Your task to perform on an android device: Open Yahoo.com Image 0: 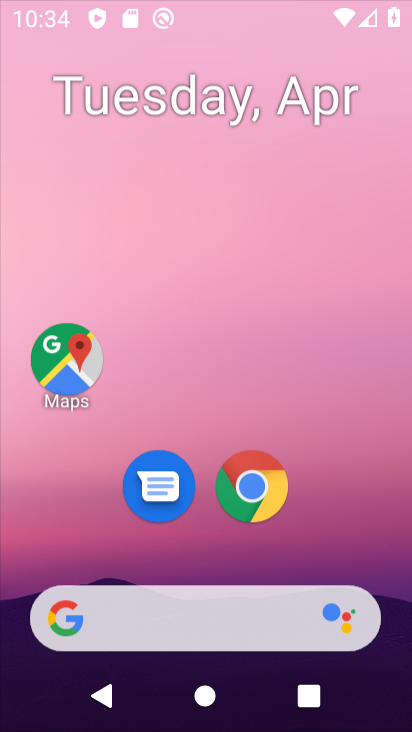
Step 0: drag from (63, 13) to (2, 5)
Your task to perform on an android device: Open Yahoo.com Image 1: 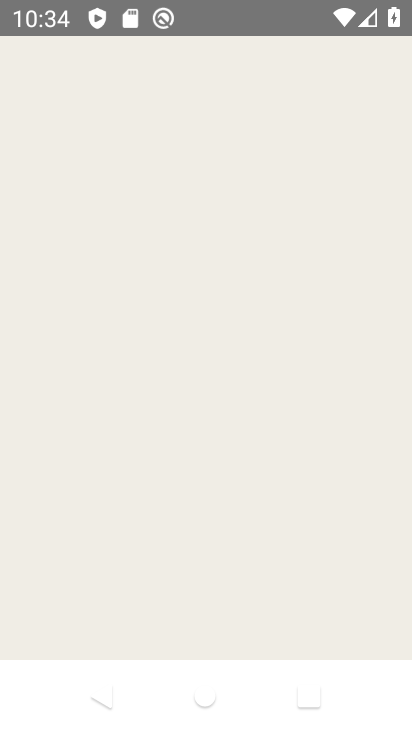
Step 1: press home button
Your task to perform on an android device: Open Yahoo.com Image 2: 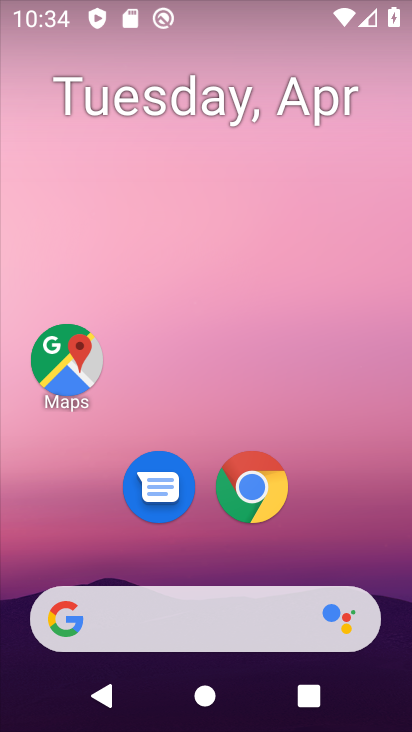
Step 2: click (228, 504)
Your task to perform on an android device: Open Yahoo.com Image 3: 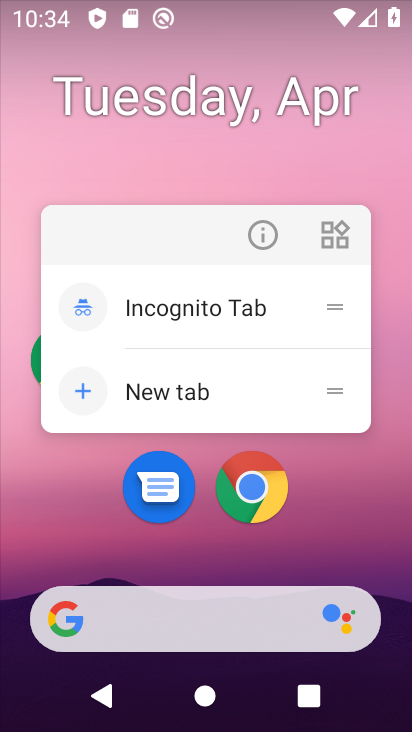
Step 3: click (255, 493)
Your task to perform on an android device: Open Yahoo.com Image 4: 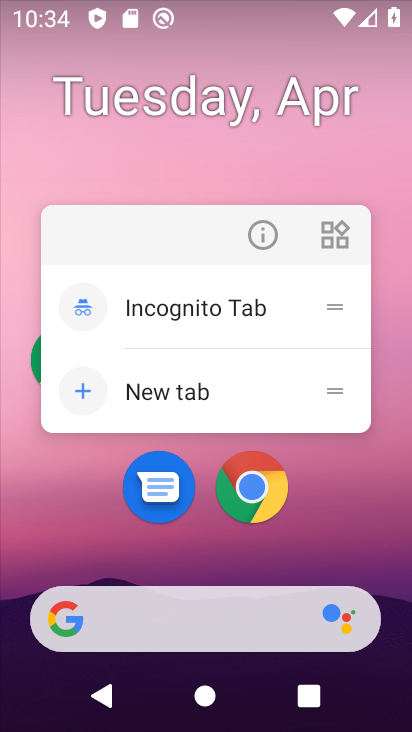
Step 4: click (255, 493)
Your task to perform on an android device: Open Yahoo.com Image 5: 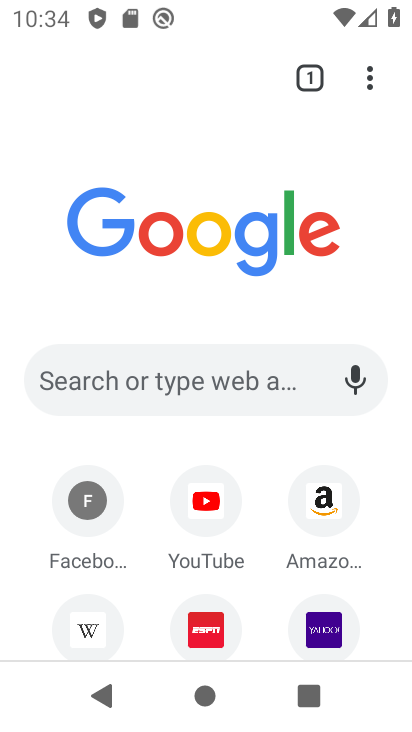
Step 5: click (302, 610)
Your task to perform on an android device: Open Yahoo.com Image 6: 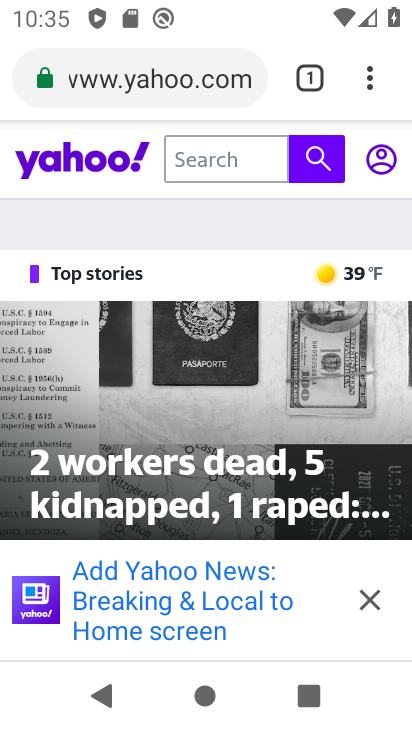
Step 6: task complete